Your task to perform on an android device: turn off wifi Image 0: 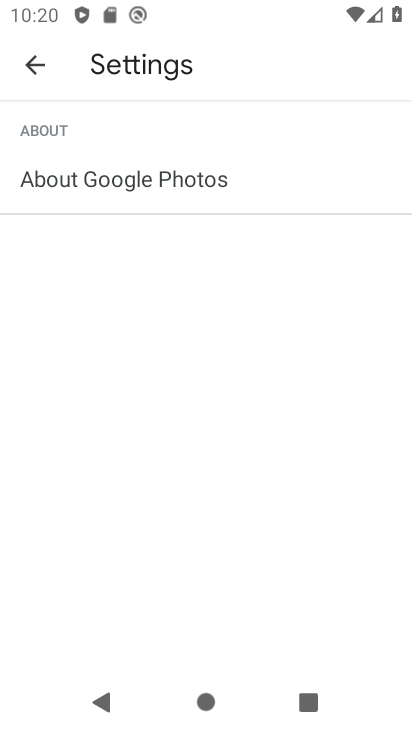
Step 0: press home button
Your task to perform on an android device: turn off wifi Image 1: 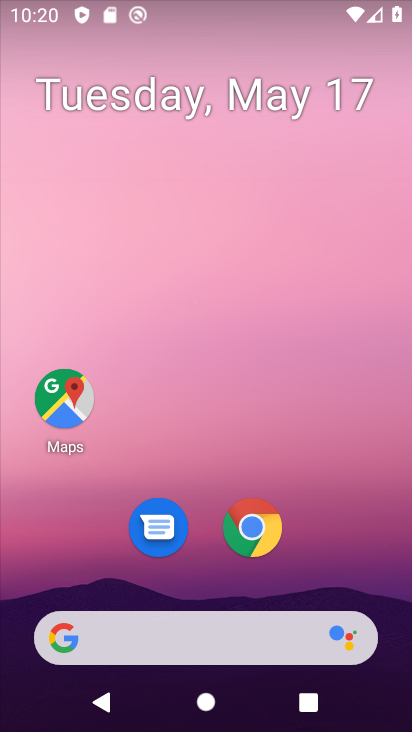
Step 1: drag from (86, 598) to (202, 114)
Your task to perform on an android device: turn off wifi Image 2: 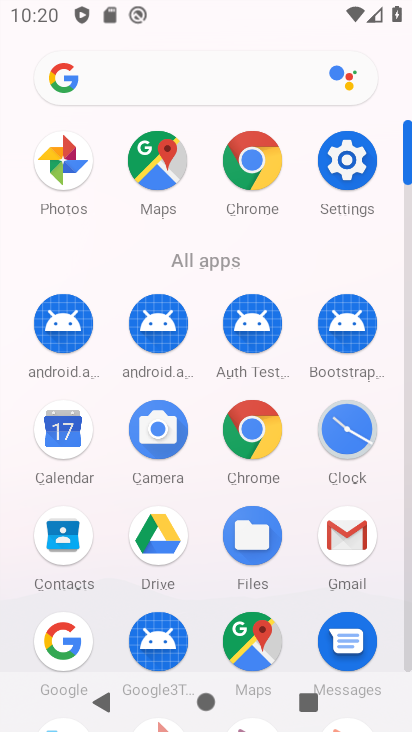
Step 2: drag from (158, 602) to (263, 274)
Your task to perform on an android device: turn off wifi Image 3: 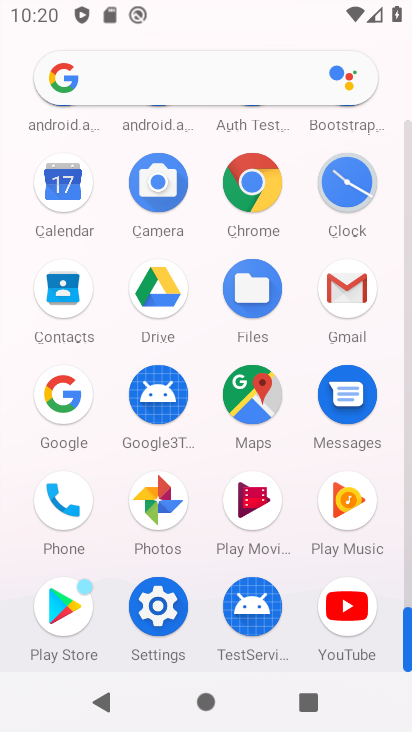
Step 3: click (141, 621)
Your task to perform on an android device: turn off wifi Image 4: 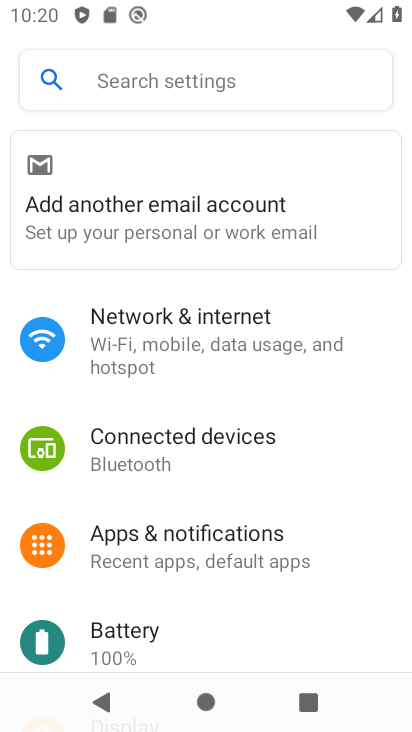
Step 4: click (219, 327)
Your task to perform on an android device: turn off wifi Image 5: 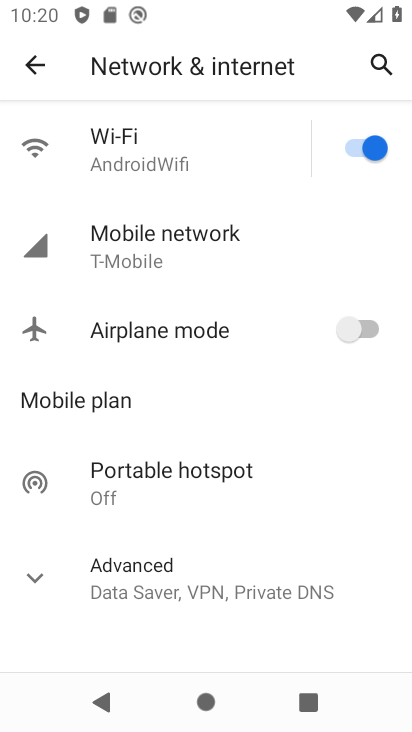
Step 5: click (347, 150)
Your task to perform on an android device: turn off wifi Image 6: 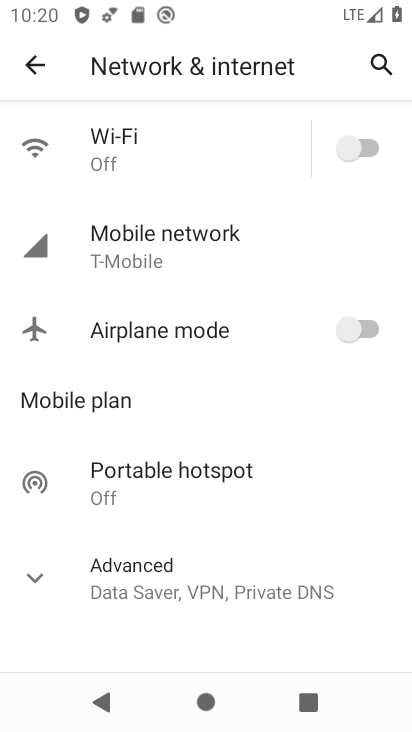
Step 6: task complete